Your task to perform on an android device: change notification settings in the gmail app Image 0: 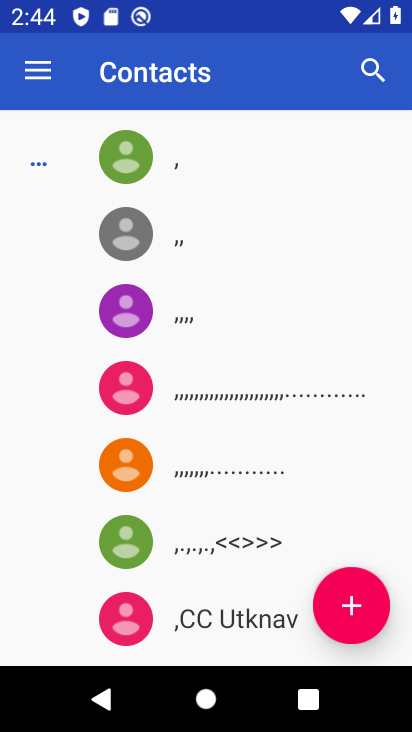
Step 0: press home button
Your task to perform on an android device: change notification settings in the gmail app Image 1: 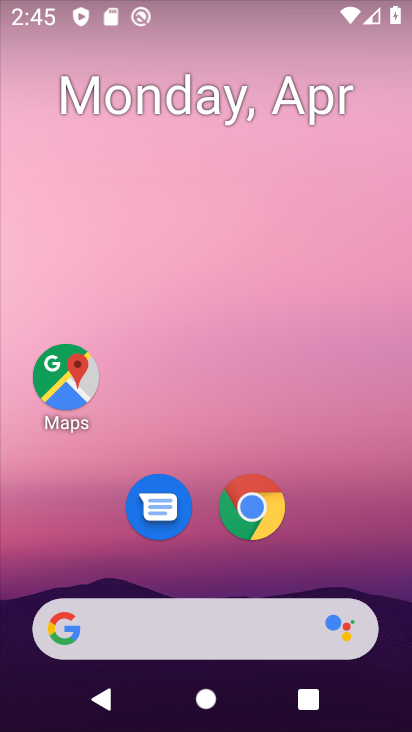
Step 1: drag from (377, 552) to (292, 139)
Your task to perform on an android device: change notification settings in the gmail app Image 2: 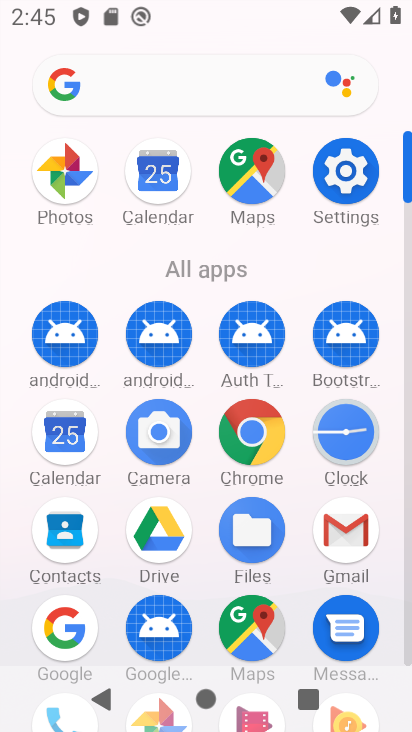
Step 2: click (353, 539)
Your task to perform on an android device: change notification settings in the gmail app Image 3: 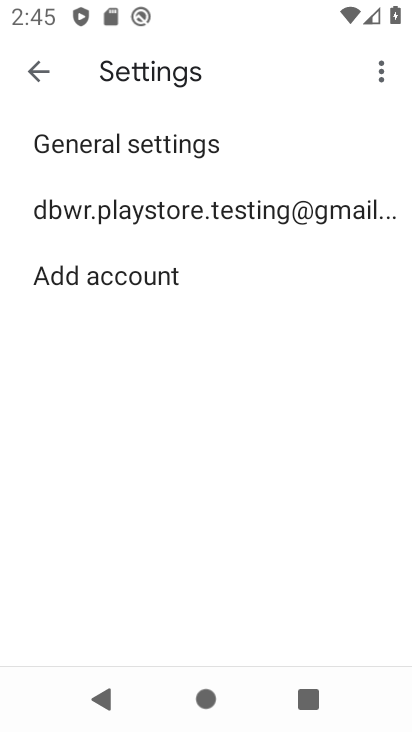
Step 3: click (280, 225)
Your task to perform on an android device: change notification settings in the gmail app Image 4: 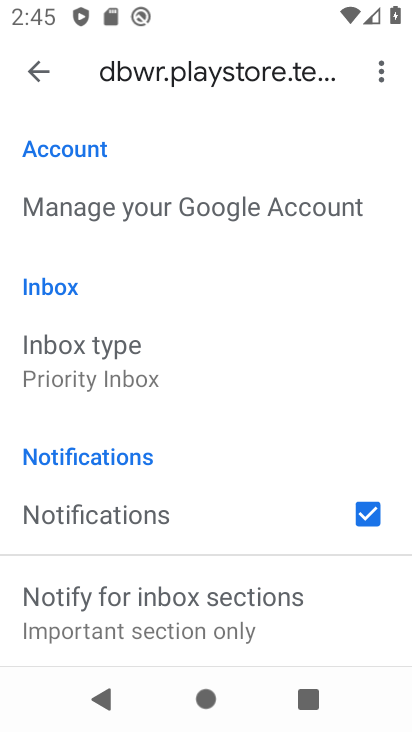
Step 4: drag from (240, 632) to (218, 156)
Your task to perform on an android device: change notification settings in the gmail app Image 5: 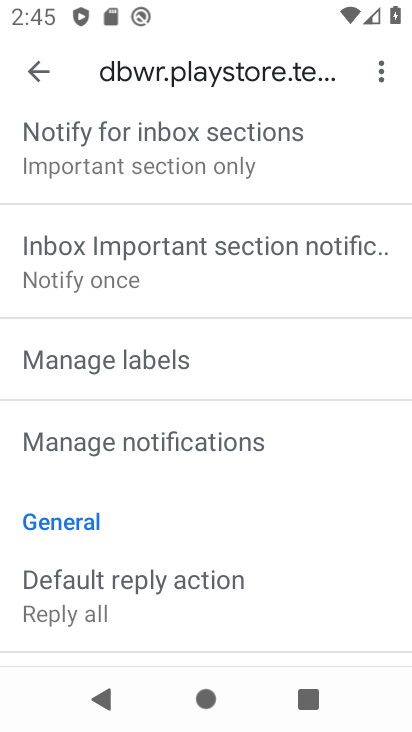
Step 5: click (279, 443)
Your task to perform on an android device: change notification settings in the gmail app Image 6: 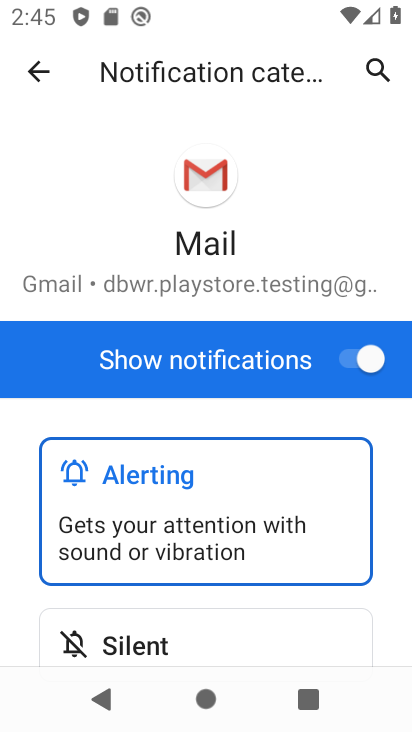
Step 6: drag from (387, 587) to (264, 233)
Your task to perform on an android device: change notification settings in the gmail app Image 7: 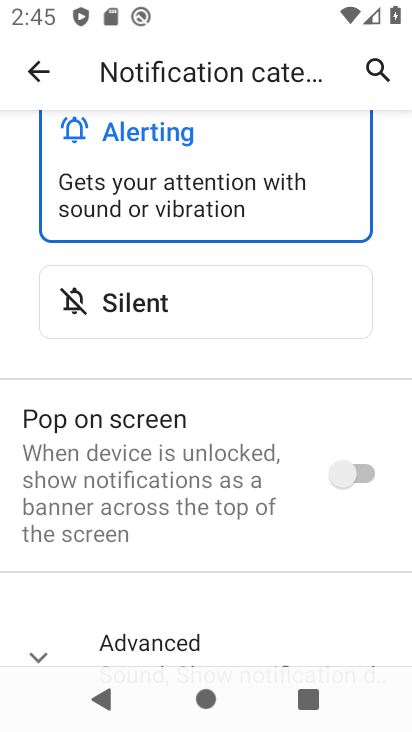
Step 7: click (276, 302)
Your task to perform on an android device: change notification settings in the gmail app Image 8: 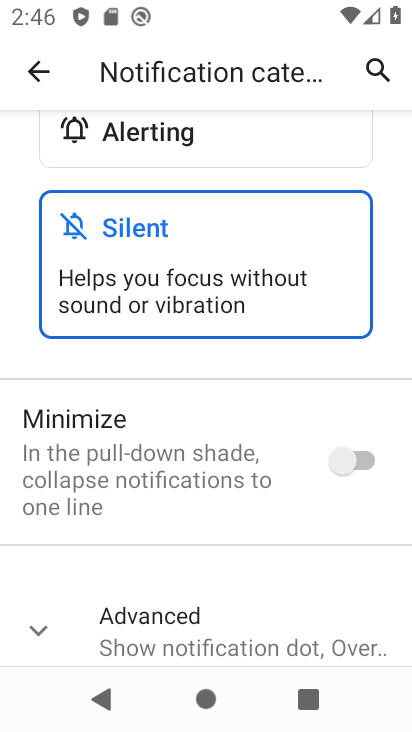
Step 8: click (352, 457)
Your task to perform on an android device: change notification settings in the gmail app Image 9: 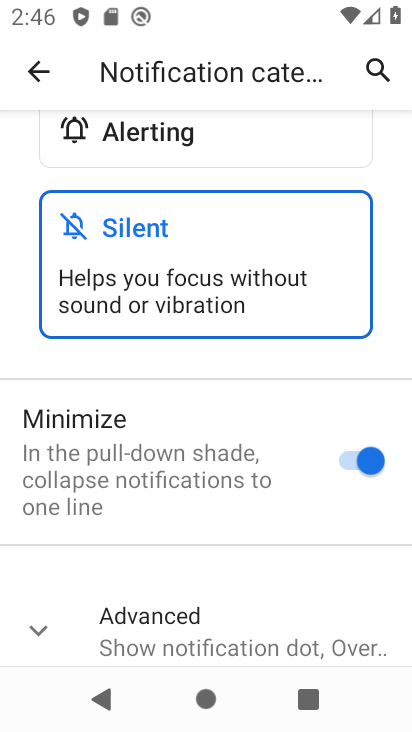
Step 9: task complete